Your task to perform on an android device: Open Youtube and go to "Your channel" Image 0: 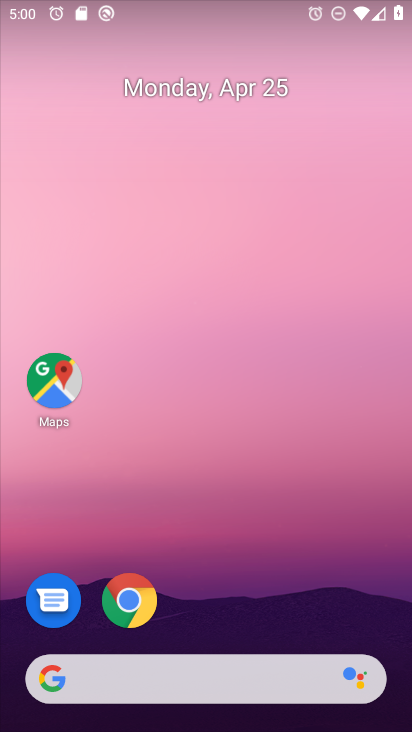
Step 0: drag from (271, 555) to (268, 26)
Your task to perform on an android device: Open Youtube and go to "Your channel" Image 1: 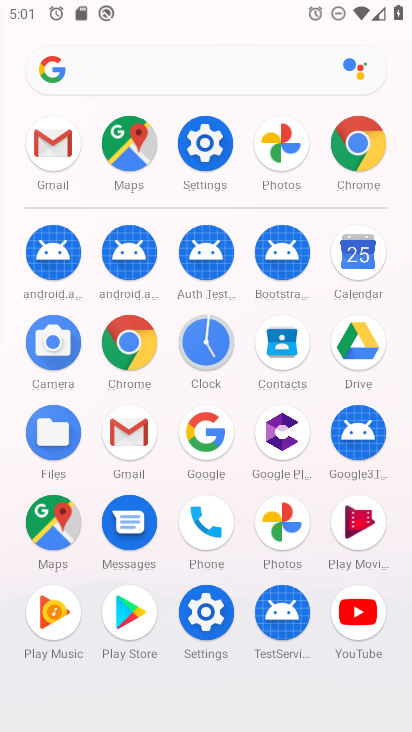
Step 1: click (354, 614)
Your task to perform on an android device: Open Youtube and go to "Your channel" Image 2: 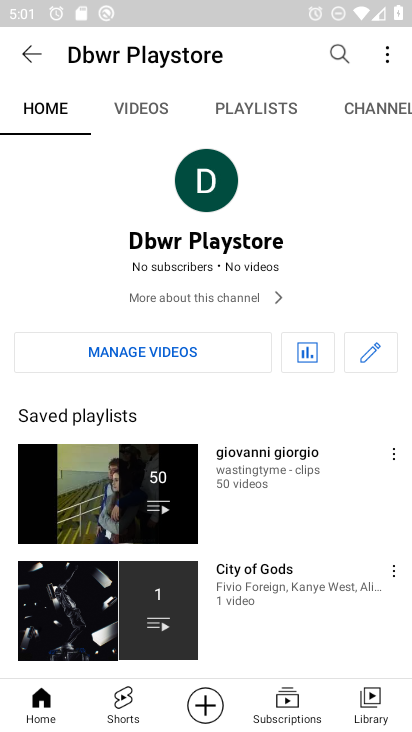
Step 2: click (388, 57)
Your task to perform on an android device: Open Youtube and go to "Your channel" Image 3: 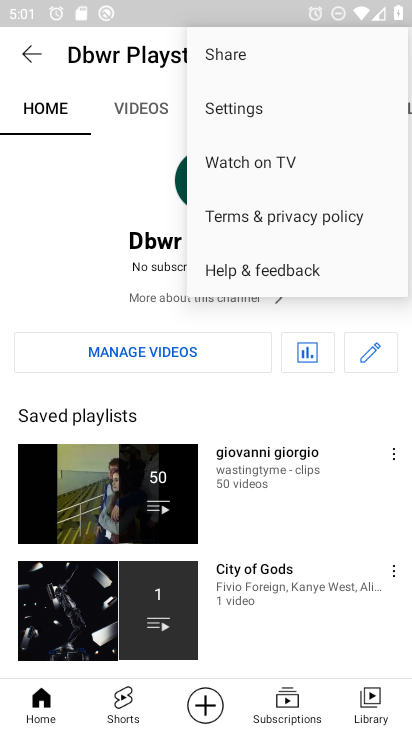
Step 3: click (19, 180)
Your task to perform on an android device: Open Youtube and go to "Your channel" Image 4: 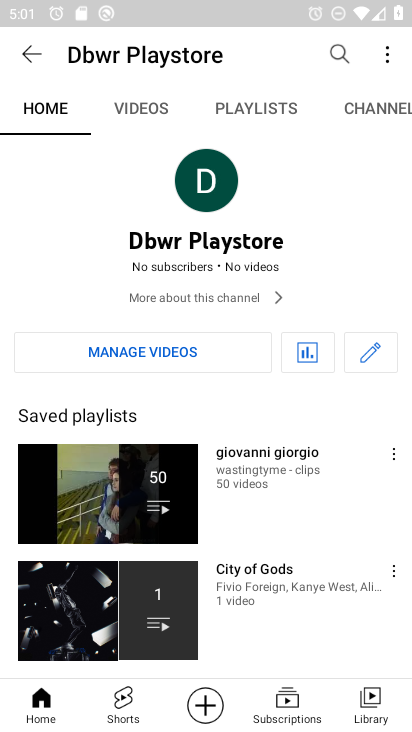
Step 4: click (372, 705)
Your task to perform on an android device: Open Youtube and go to "Your channel" Image 5: 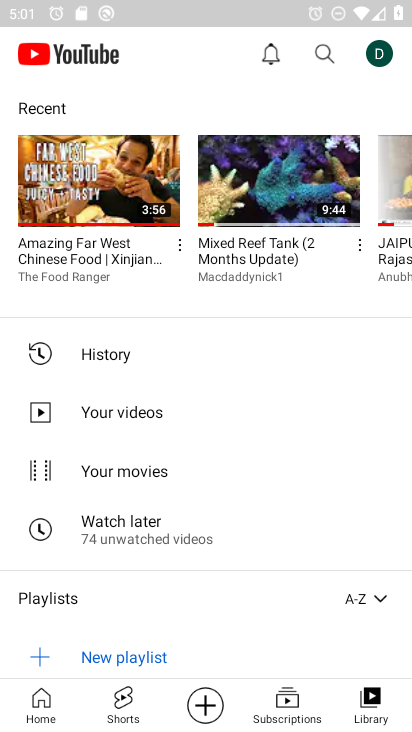
Step 5: click (380, 49)
Your task to perform on an android device: Open Youtube and go to "Your channel" Image 6: 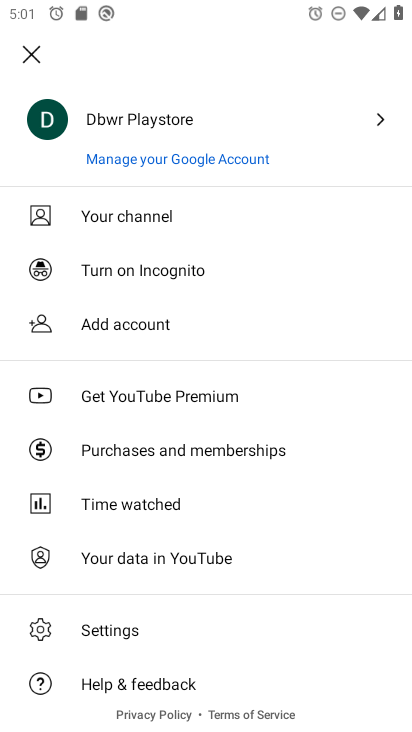
Step 6: click (150, 208)
Your task to perform on an android device: Open Youtube and go to "Your channel" Image 7: 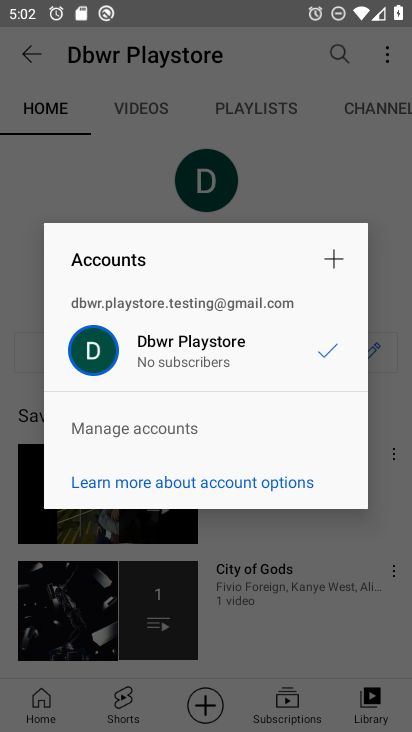
Step 7: task complete